Your task to perform on an android device: Open Android settings Image 0: 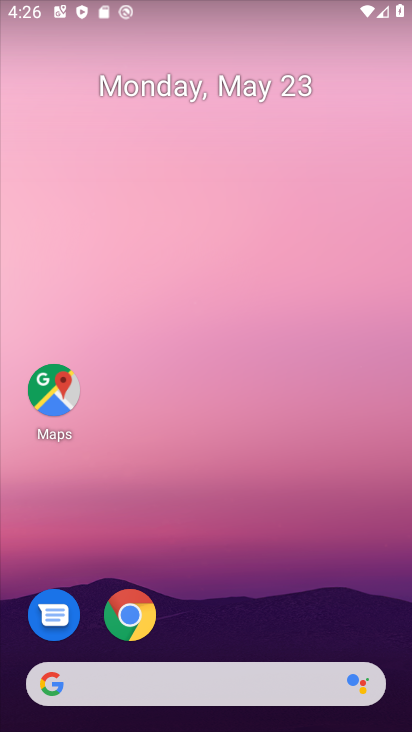
Step 0: drag from (240, 597) to (247, 134)
Your task to perform on an android device: Open Android settings Image 1: 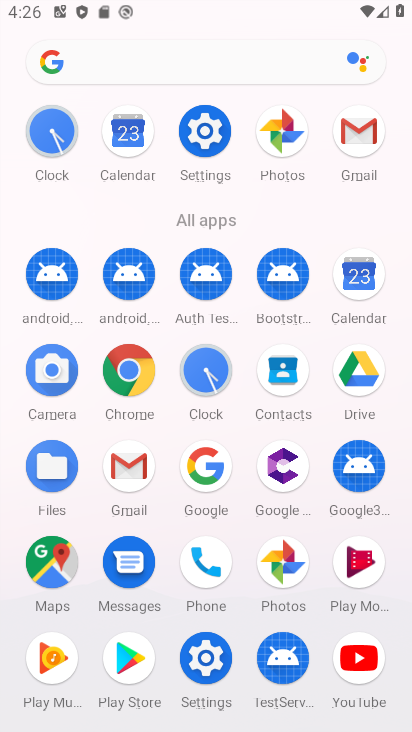
Step 1: click (204, 660)
Your task to perform on an android device: Open Android settings Image 2: 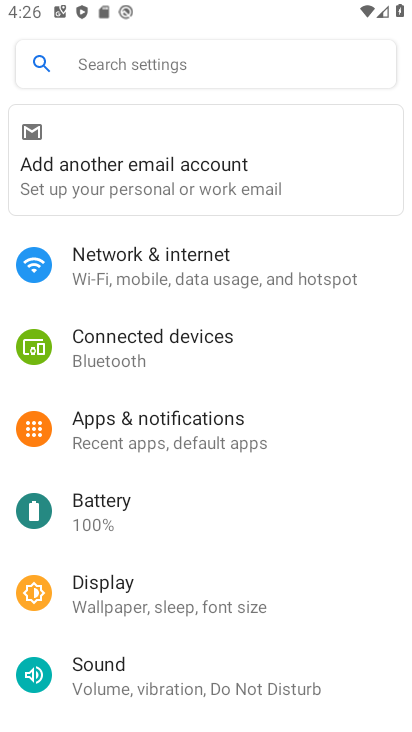
Step 2: drag from (317, 646) to (342, 402)
Your task to perform on an android device: Open Android settings Image 3: 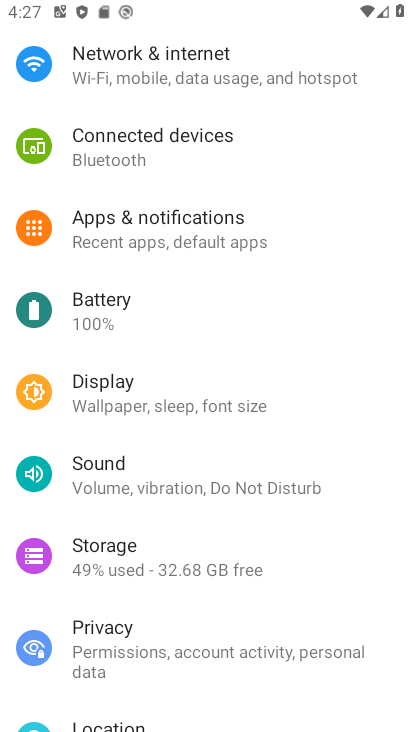
Step 3: drag from (332, 670) to (291, 223)
Your task to perform on an android device: Open Android settings Image 4: 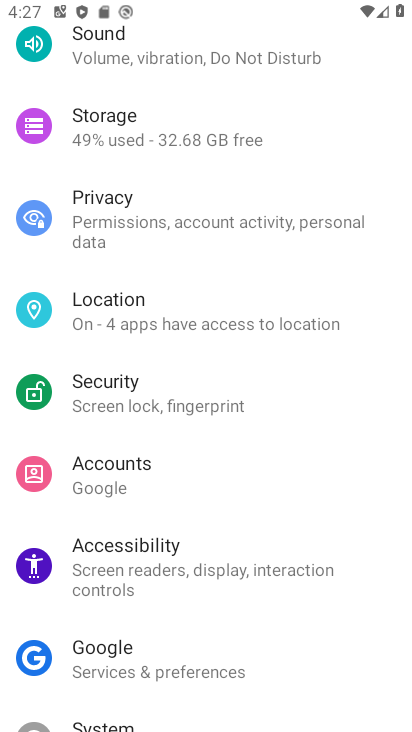
Step 4: drag from (184, 648) to (226, 299)
Your task to perform on an android device: Open Android settings Image 5: 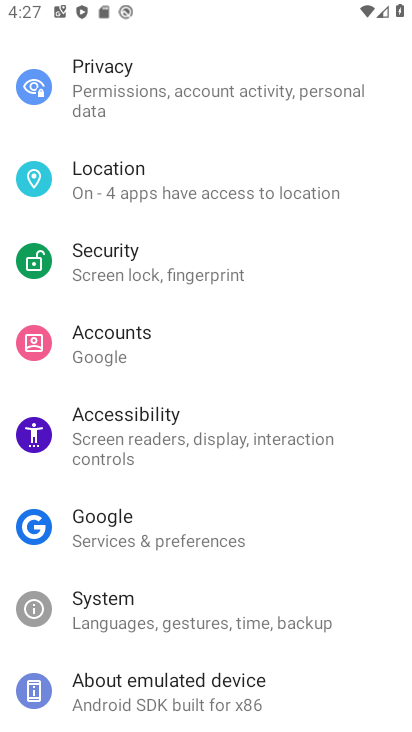
Step 5: click (173, 692)
Your task to perform on an android device: Open Android settings Image 6: 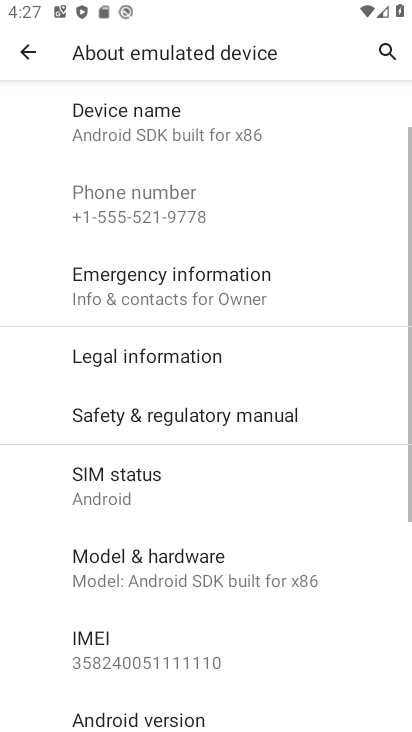
Step 6: drag from (276, 604) to (269, 343)
Your task to perform on an android device: Open Android settings Image 7: 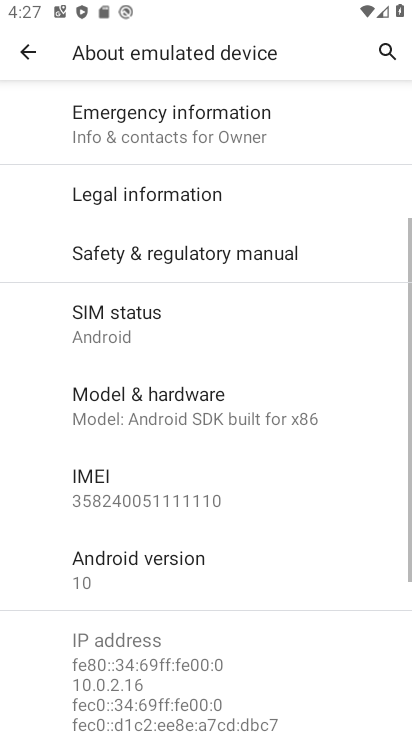
Step 7: click (154, 556)
Your task to perform on an android device: Open Android settings Image 8: 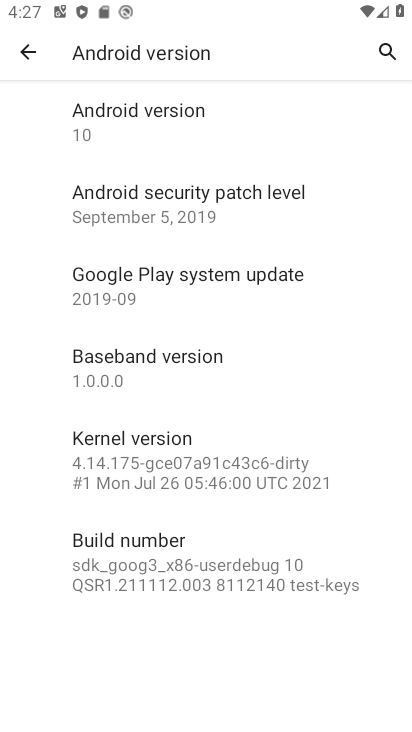
Step 8: task complete